Your task to perform on an android device: Go to Amazon Image 0: 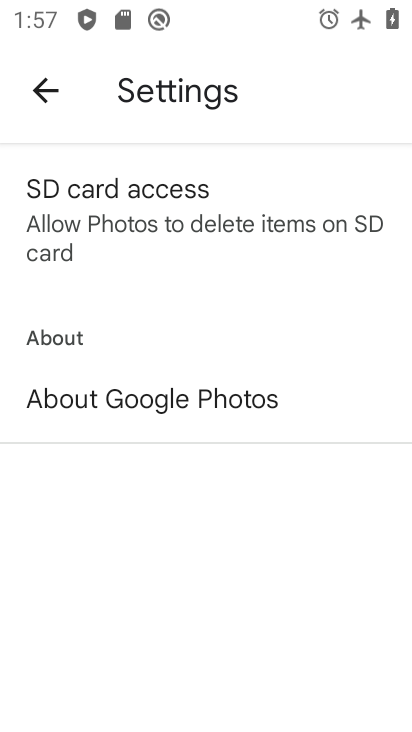
Step 0: press home button
Your task to perform on an android device: Go to Amazon Image 1: 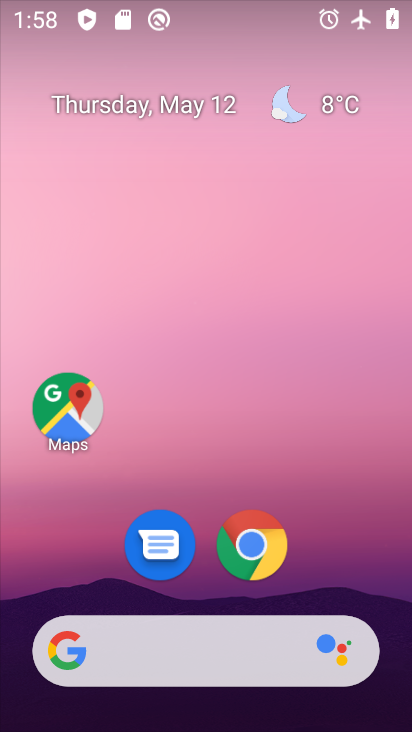
Step 1: click (251, 546)
Your task to perform on an android device: Go to Amazon Image 2: 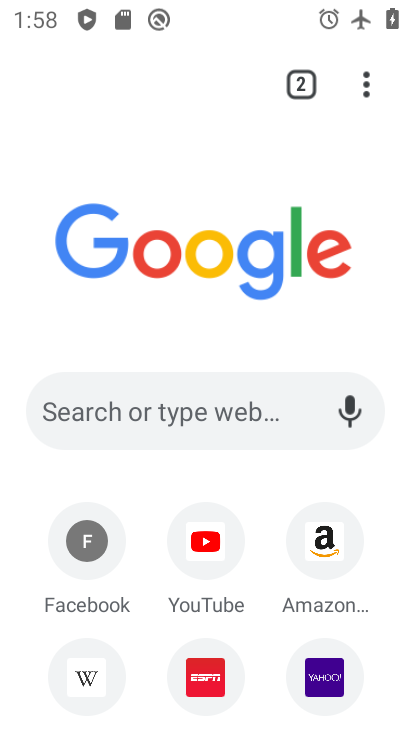
Step 2: click (315, 537)
Your task to perform on an android device: Go to Amazon Image 3: 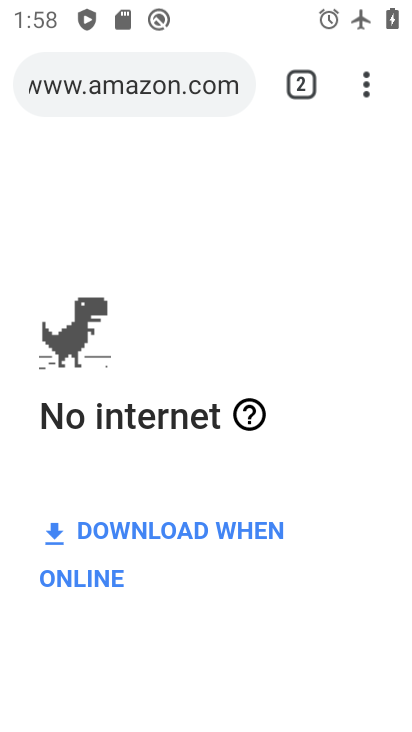
Step 3: task complete